Your task to perform on an android device: Open Reddit.com Image 0: 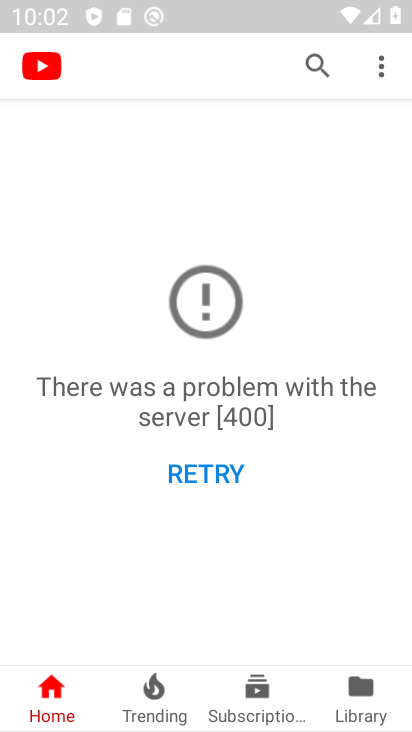
Step 0: press home button
Your task to perform on an android device: Open Reddit.com Image 1: 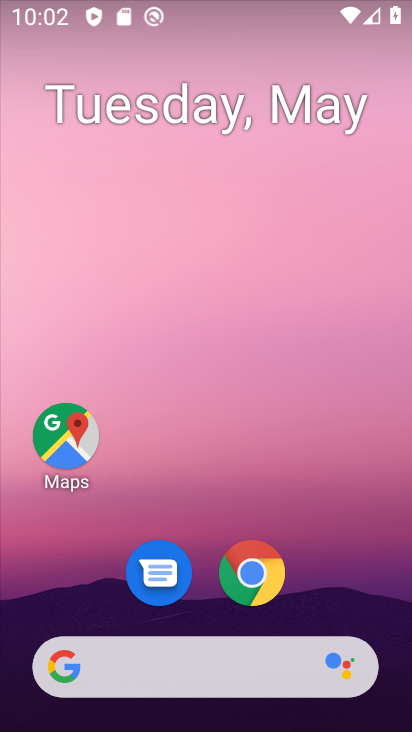
Step 1: click (262, 563)
Your task to perform on an android device: Open Reddit.com Image 2: 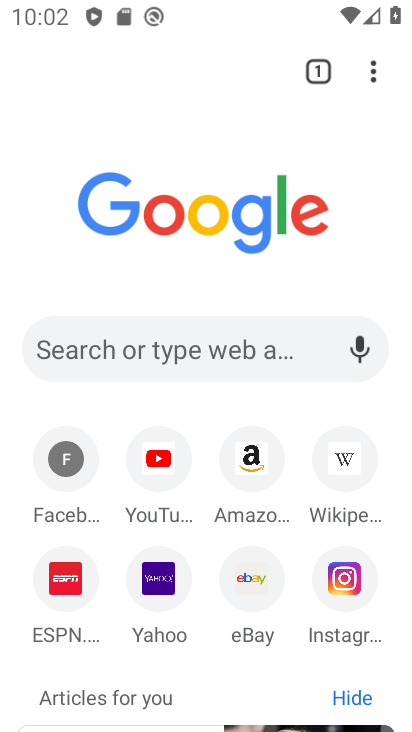
Step 2: click (188, 330)
Your task to perform on an android device: Open Reddit.com Image 3: 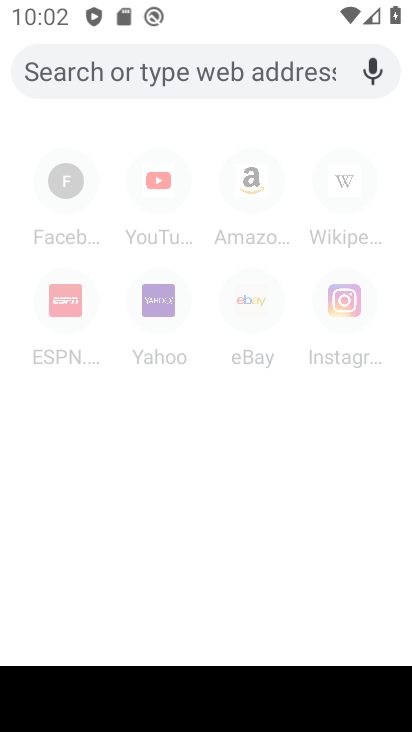
Step 3: type " Reddit.com"
Your task to perform on an android device: Open Reddit.com Image 4: 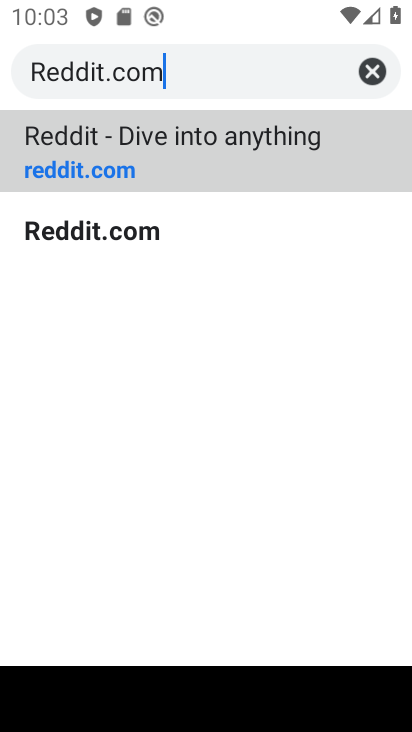
Step 4: click (78, 166)
Your task to perform on an android device: Open Reddit.com Image 5: 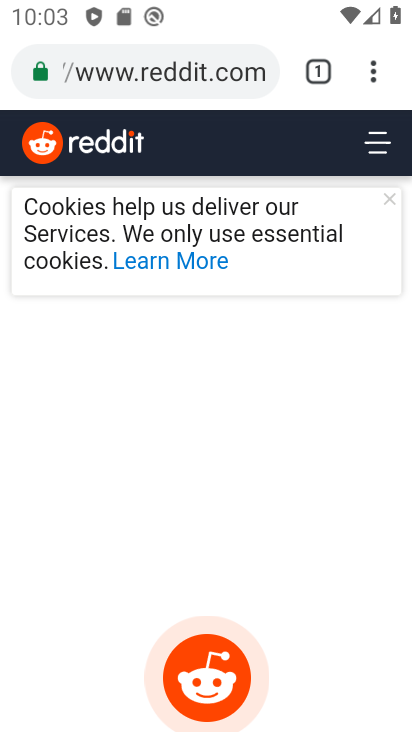
Step 5: task complete